Your task to perform on an android device: open a new tab in the chrome app Image 0: 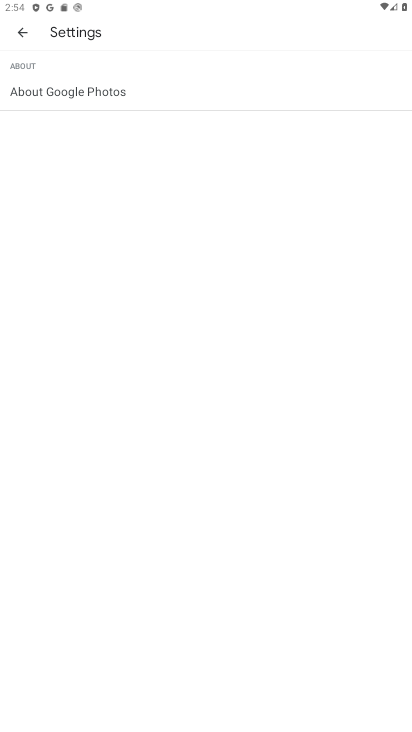
Step 0: press home button
Your task to perform on an android device: open a new tab in the chrome app Image 1: 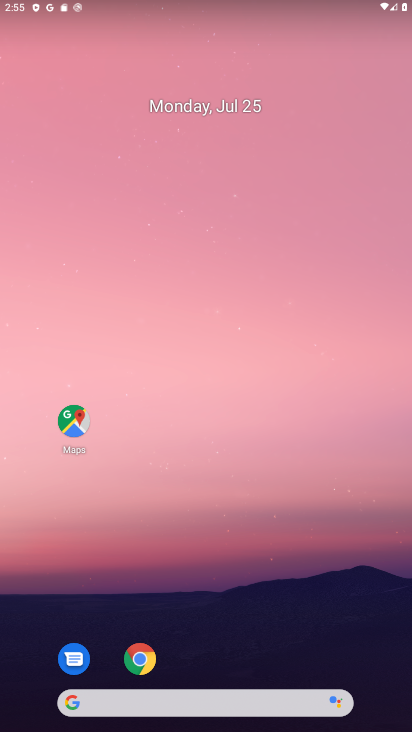
Step 1: drag from (176, 632) to (122, 53)
Your task to perform on an android device: open a new tab in the chrome app Image 2: 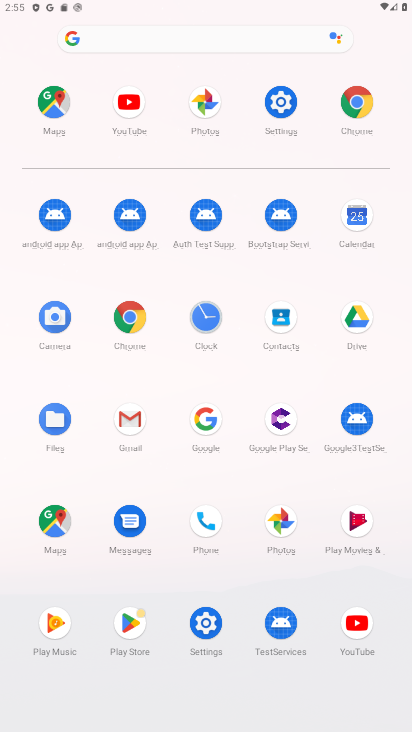
Step 2: click (133, 319)
Your task to perform on an android device: open a new tab in the chrome app Image 3: 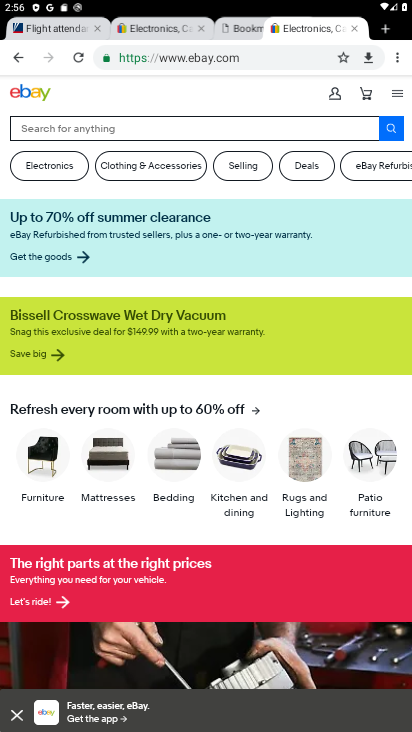
Step 3: click (387, 28)
Your task to perform on an android device: open a new tab in the chrome app Image 4: 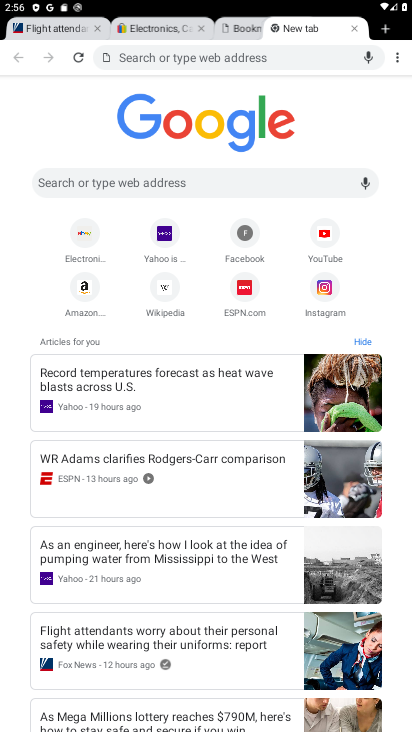
Step 4: task complete